Your task to perform on an android device: Open Android settings Image 0: 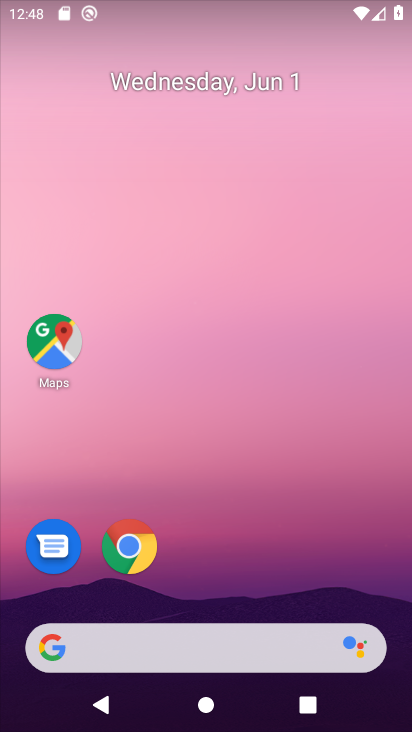
Step 0: drag from (238, 573) to (254, 35)
Your task to perform on an android device: Open Android settings Image 1: 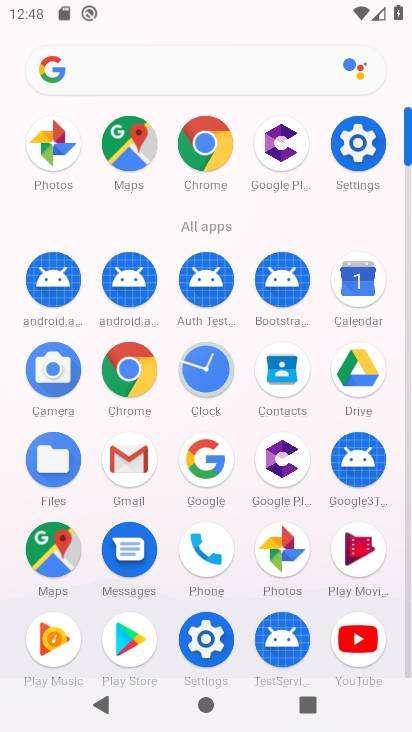
Step 1: click (363, 145)
Your task to perform on an android device: Open Android settings Image 2: 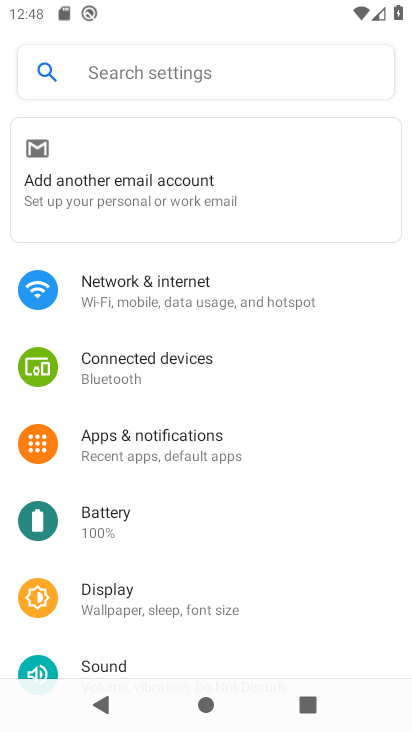
Step 2: drag from (174, 604) to (219, 64)
Your task to perform on an android device: Open Android settings Image 3: 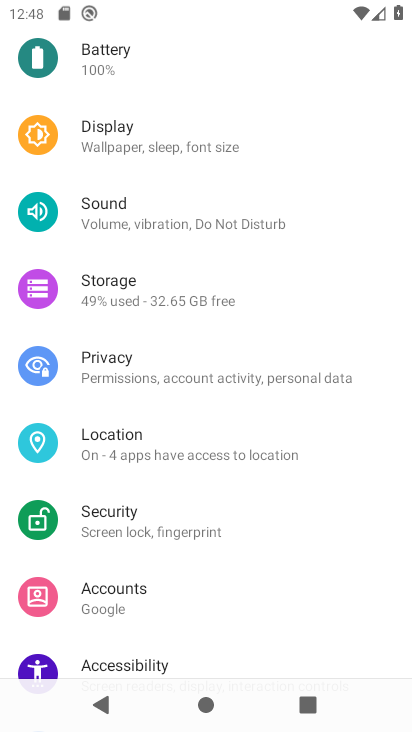
Step 3: drag from (214, 547) to (233, 116)
Your task to perform on an android device: Open Android settings Image 4: 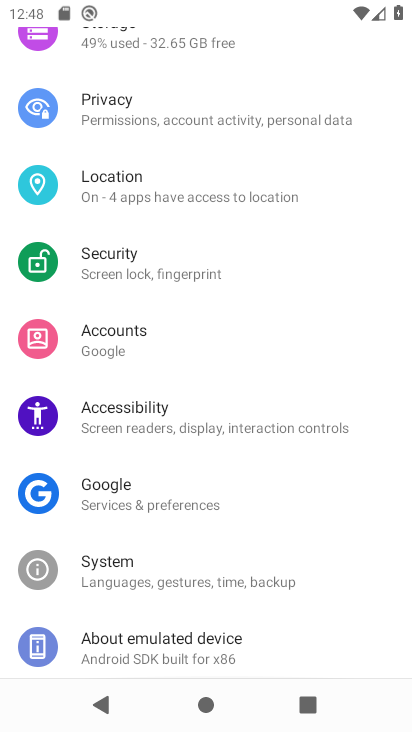
Step 4: drag from (144, 642) to (217, 41)
Your task to perform on an android device: Open Android settings Image 5: 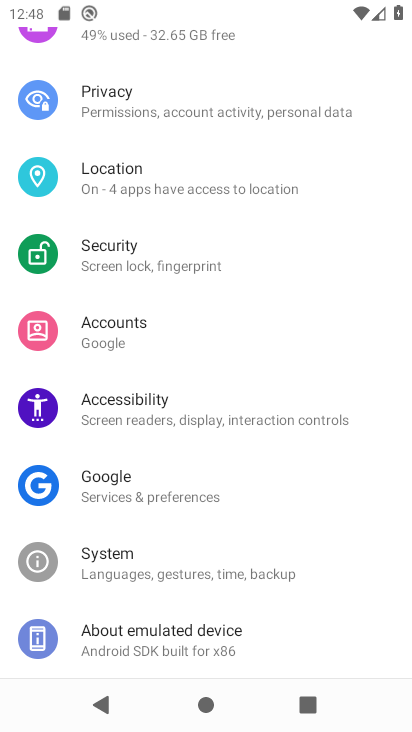
Step 5: click (150, 634)
Your task to perform on an android device: Open Android settings Image 6: 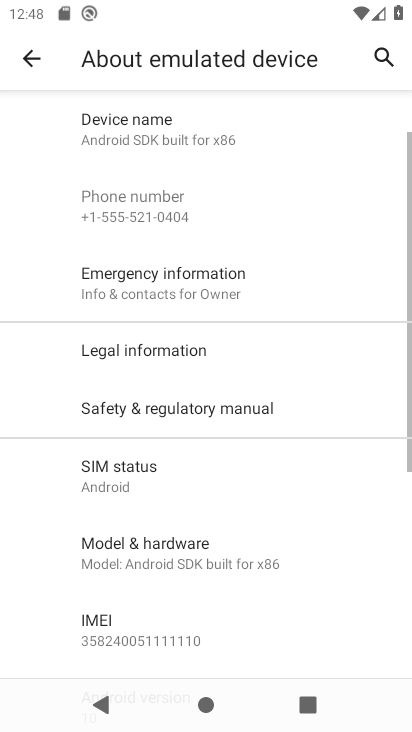
Step 6: task complete